Your task to perform on an android device: move an email to a new category in the gmail app Image 0: 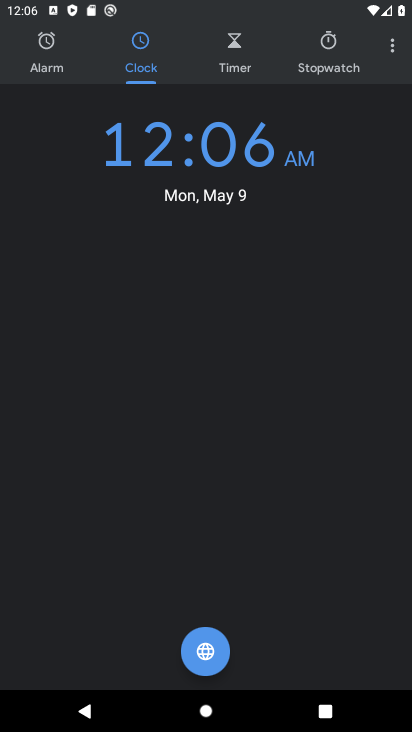
Step 0: press home button
Your task to perform on an android device: move an email to a new category in the gmail app Image 1: 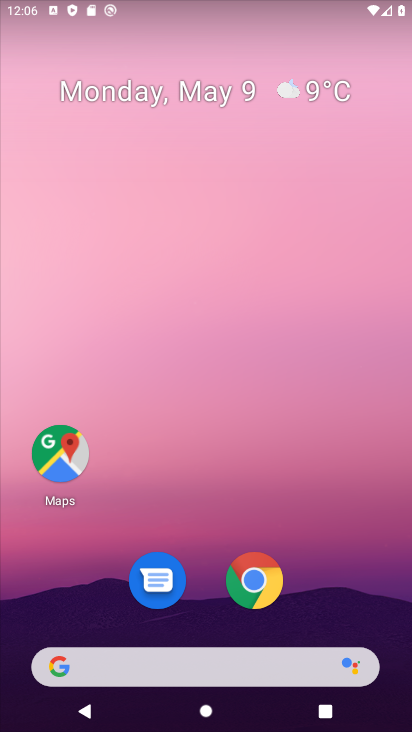
Step 1: drag from (352, 521) to (297, 79)
Your task to perform on an android device: move an email to a new category in the gmail app Image 2: 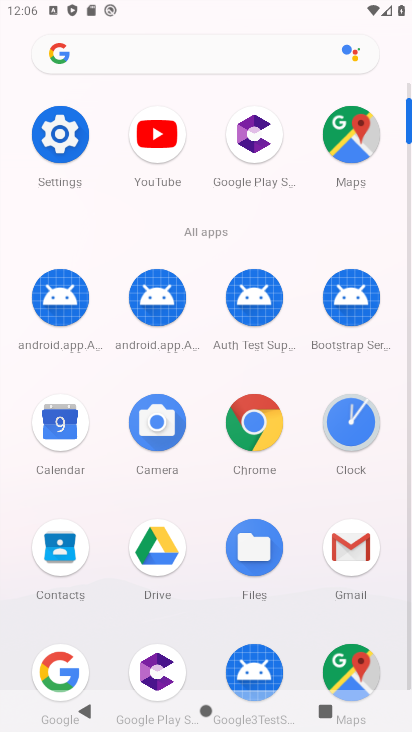
Step 2: click (355, 536)
Your task to perform on an android device: move an email to a new category in the gmail app Image 3: 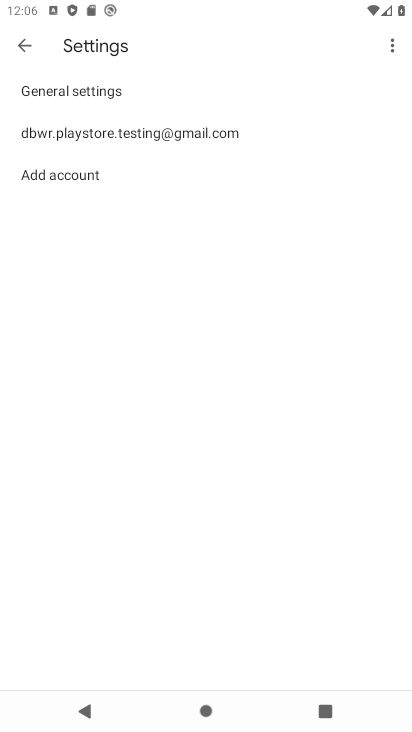
Step 3: click (81, 136)
Your task to perform on an android device: move an email to a new category in the gmail app Image 4: 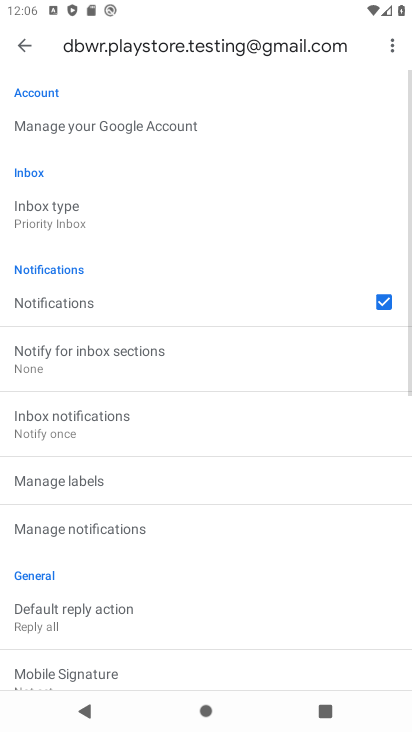
Step 4: click (19, 48)
Your task to perform on an android device: move an email to a new category in the gmail app Image 5: 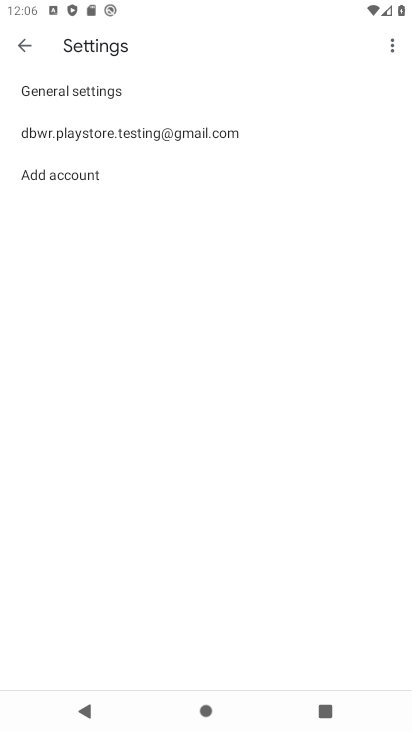
Step 5: click (19, 54)
Your task to perform on an android device: move an email to a new category in the gmail app Image 6: 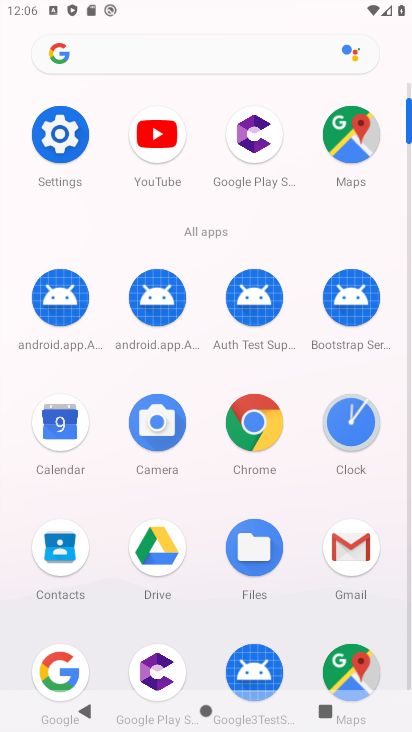
Step 6: click (350, 542)
Your task to perform on an android device: move an email to a new category in the gmail app Image 7: 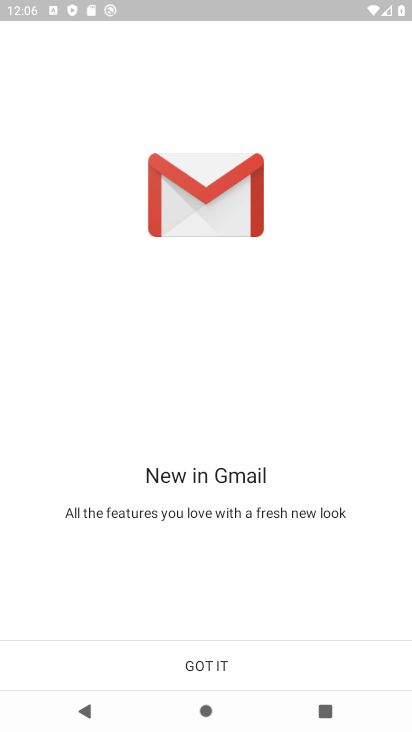
Step 7: click (195, 663)
Your task to perform on an android device: move an email to a new category in the gmail app Image 8: 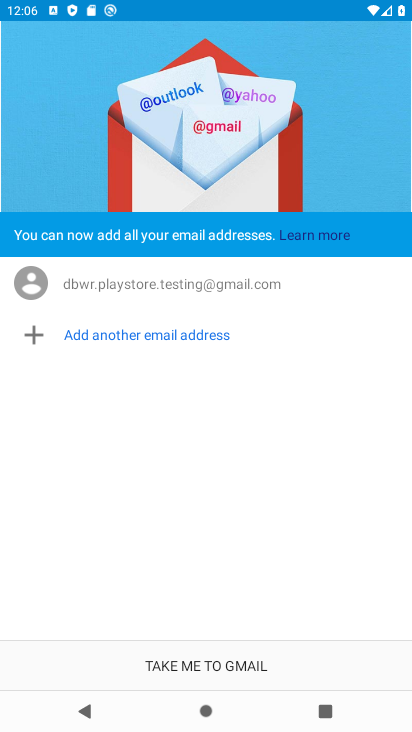
Step 8: click (224, 659)
Your task to perform on an android device: move an email to a new category in the gmail app Image 9: 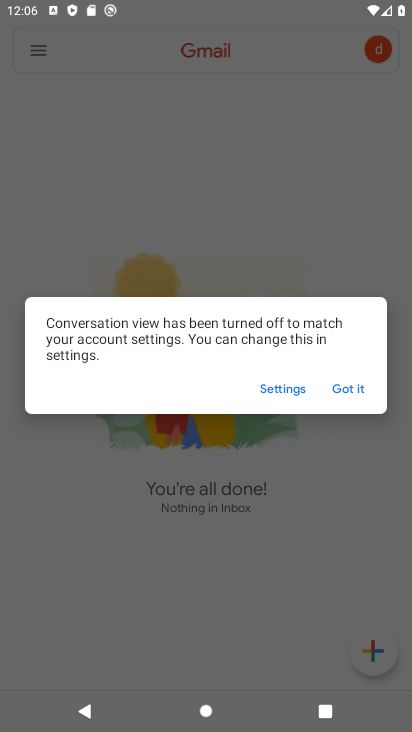
Step 9: click (339, 386)
Your task to perform on an android device: move an email to a new category in the gmail app Image 10: 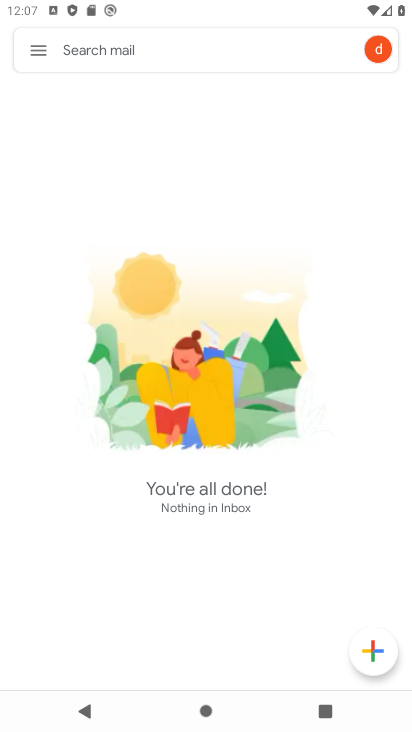
Step 10: click (35, 50)
Your task to perform on an android device: move an email to a new category in the gmail app Image 11: 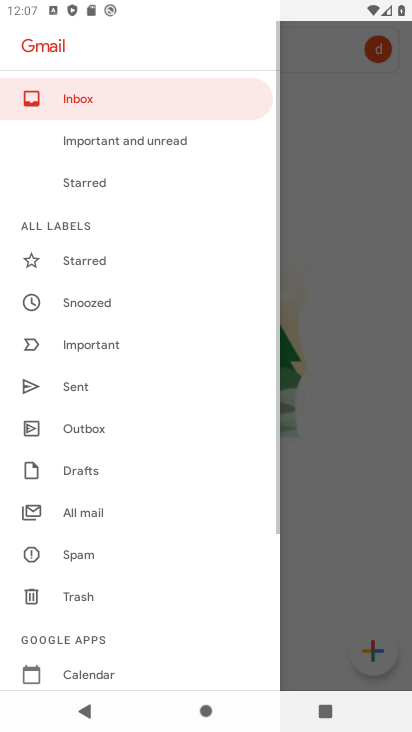
Step 11: click (122, 501)
Your task to perform on an android device: move an email to a new category in the gmail app Image 12: 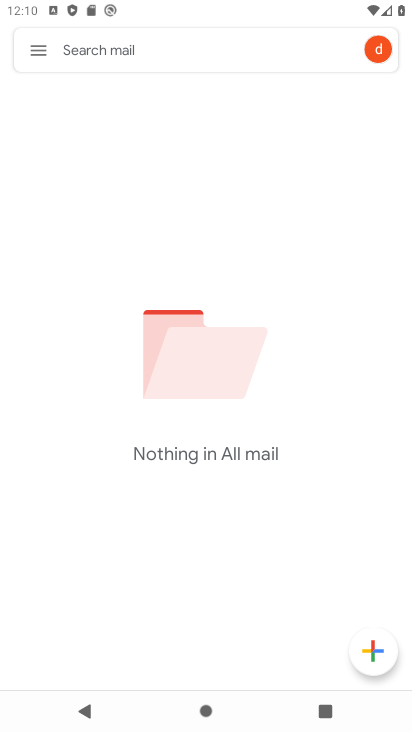
Step 12: task complete